Your task to perform on an android device: set the stopwatch Image 0: 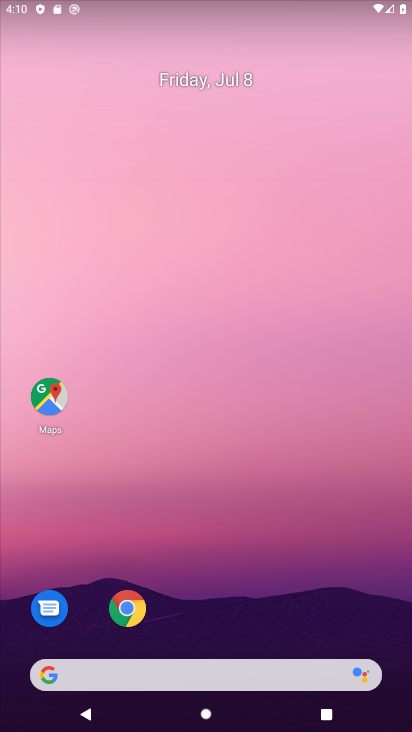
Step 0: press home button
Your task to perform on an android device: set the stopwatch Image 1: 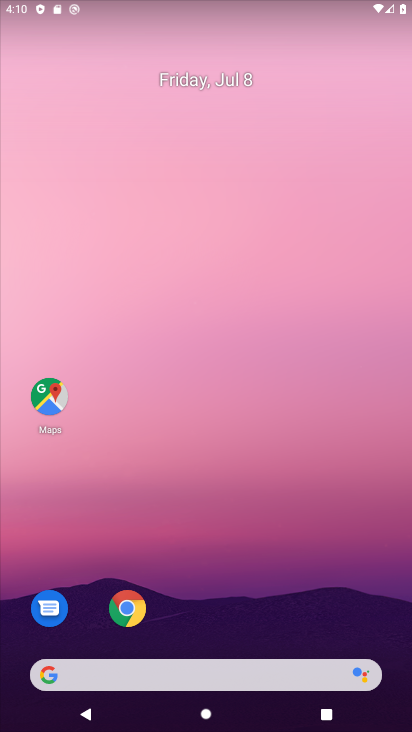
Step 1: drag from (249, 558) to (256, 140)
Your task to perform on an android device: set the stopwatch Image 2: 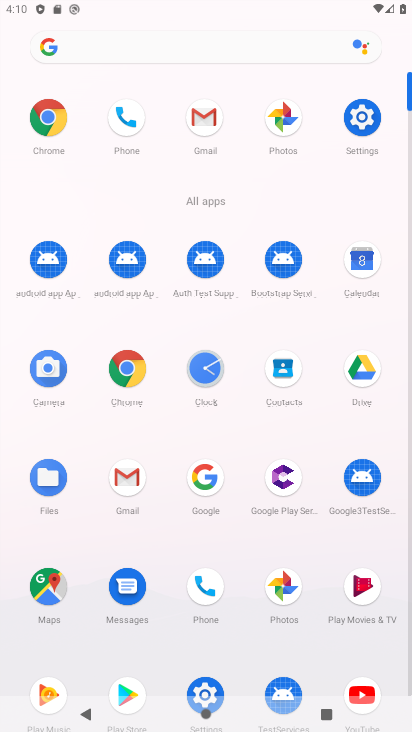
Step 2: click (202, 362)
Your task to perform on an android device: set the stopwatch Image 3: 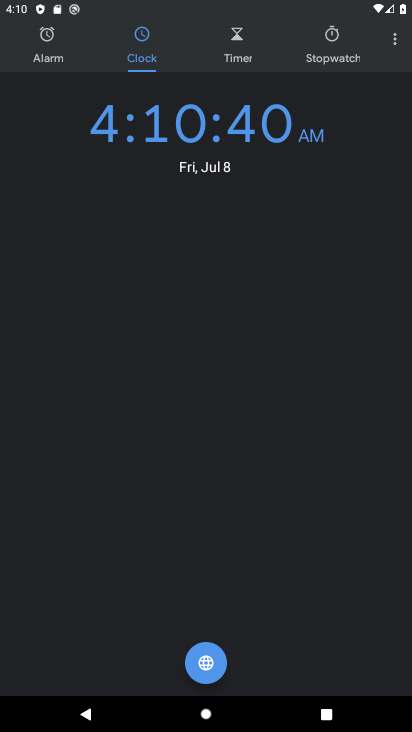
Step 3: click (329, 39)
Your task to perform on an android device: set the stopwatch Image 4: 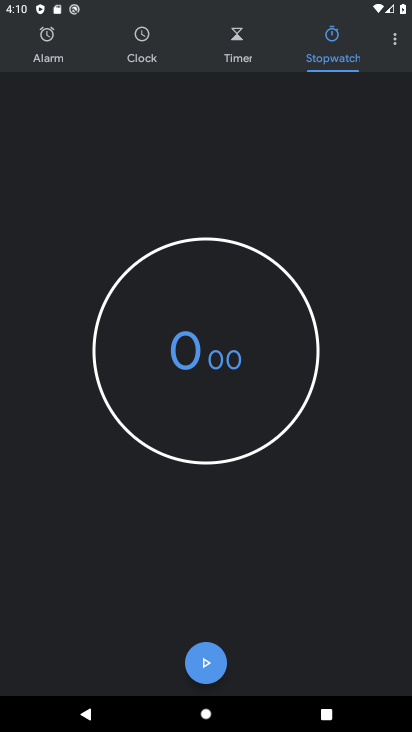
Step 4: click (210, 652)
Your task to perform on an android device: set the stopwatch Image 5: 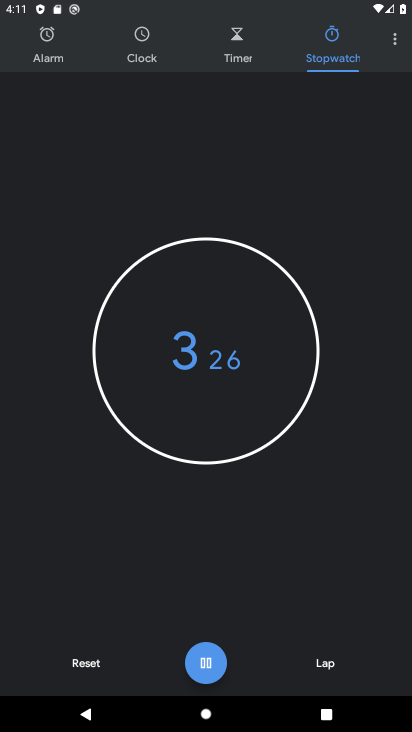
Step 5: click (210, 664)
Your task to perform on an android device: set the stopwatch Image 6: 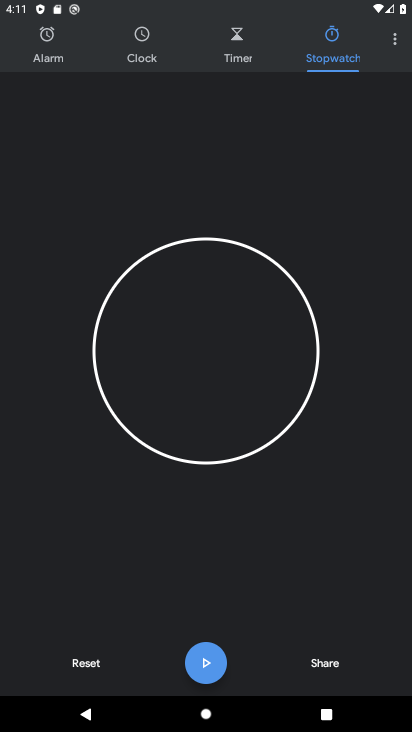
Step 6: task complete